Your task to perform on an android device: What's the weather today? Image 0: 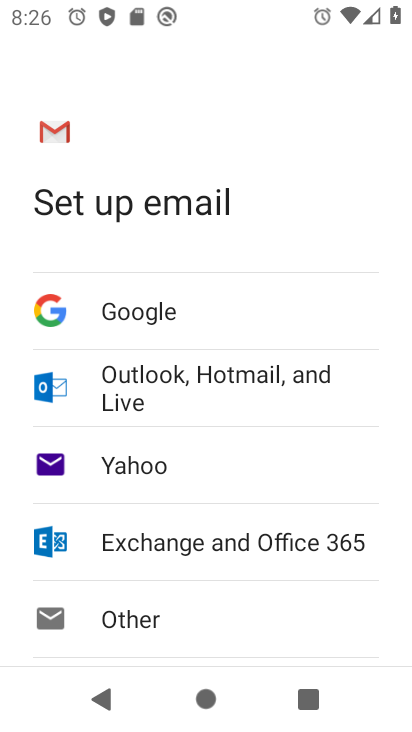
Step 0: press home button
Your task to perform on an android device: What's the weather today? Image 1: 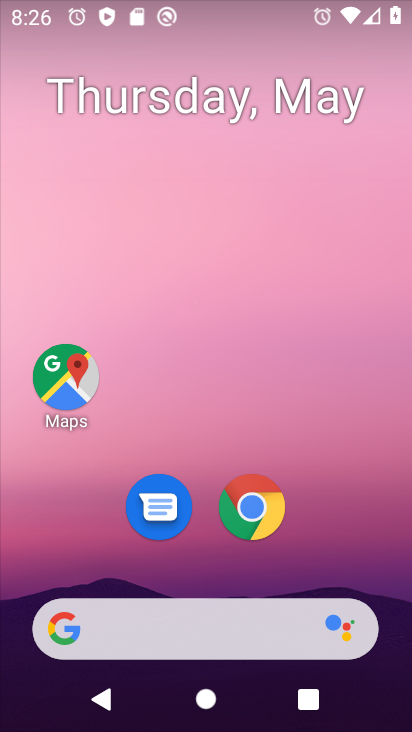
Step 1: click (149, 622)
Your task to perform on an android device: What's the weather today? Image 2: 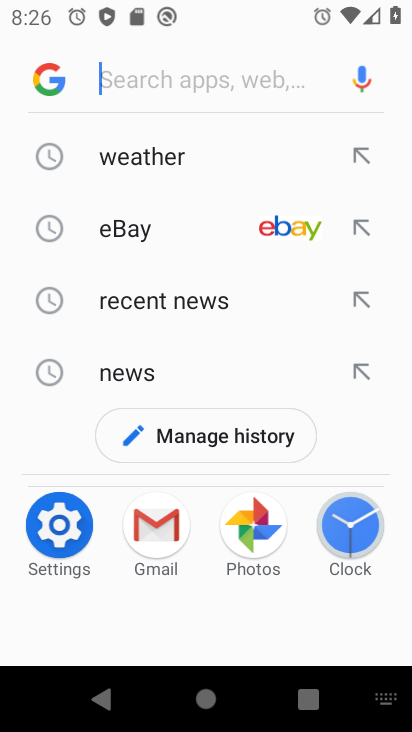
Step 2: click (166, 164)
Your task to perform on an android device: What's the weather today? Image 3: 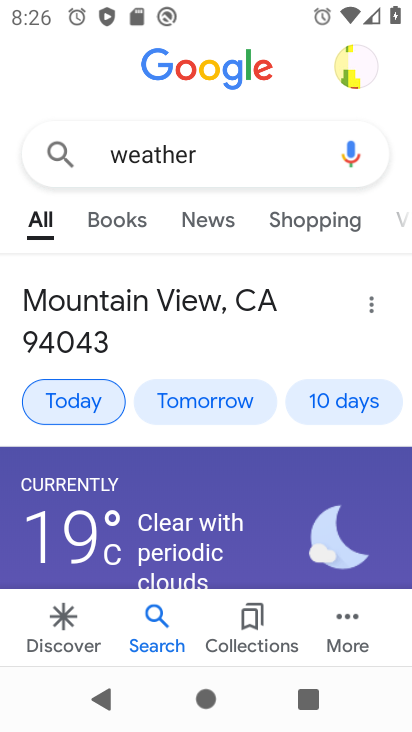
Step 3: task complete